Your task to perform on an android device: Go to display settings Image 0: 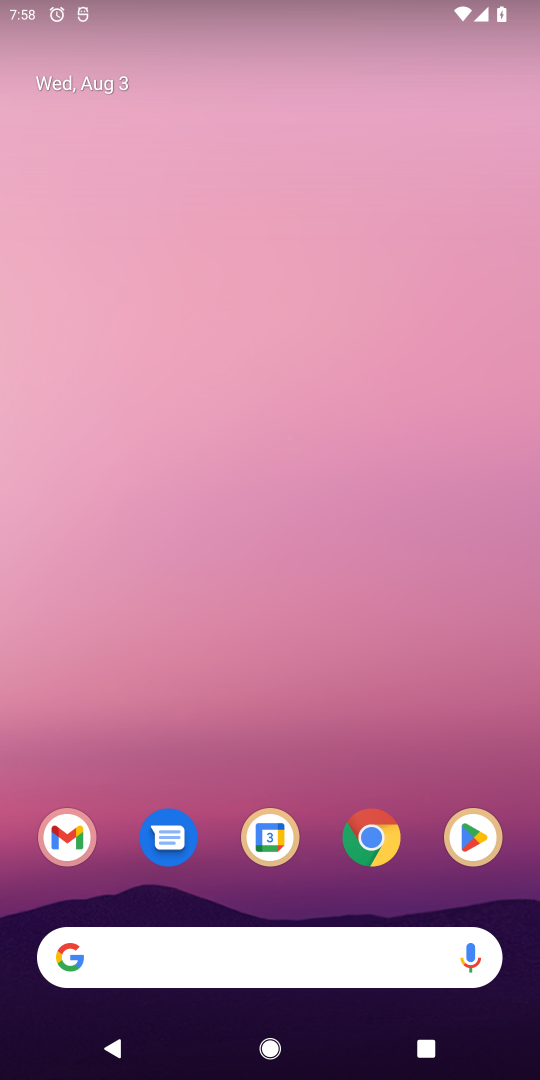
Step 0: press home button
Your task to perform on an android device: Go to display settings Image 1: 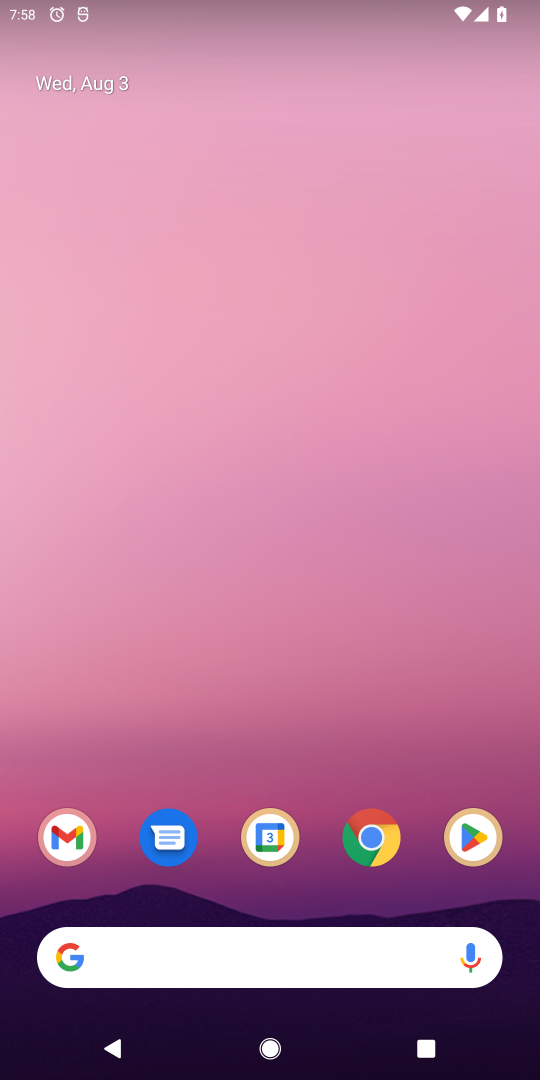
Step 1: drag from (252, 914) to (446, 225)
Your task to perform on an android device: Go to display settings Image 2: 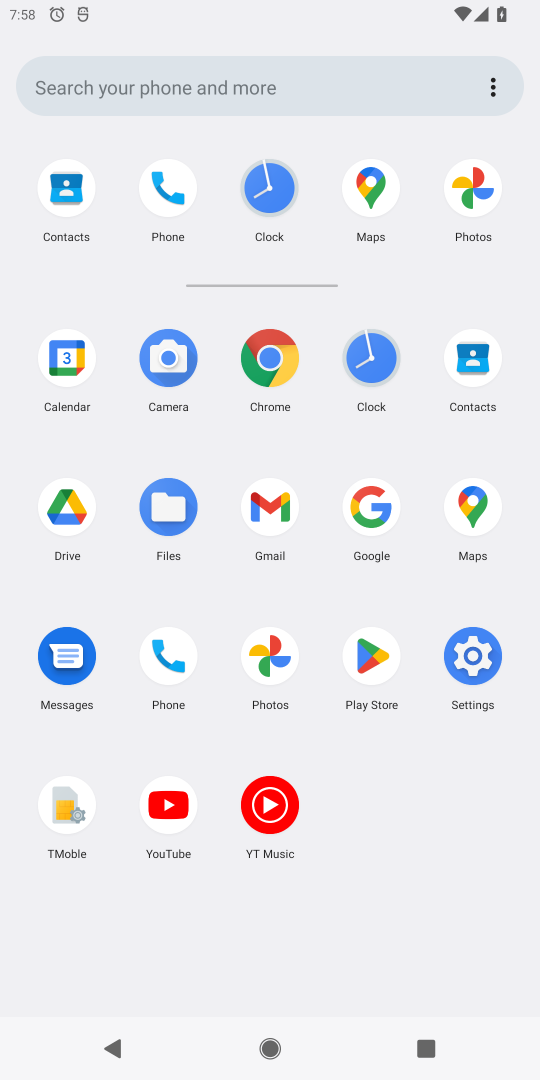
Step 2: click (467, 651)
Your task to perform on an android device: Go to display settings Image 3: 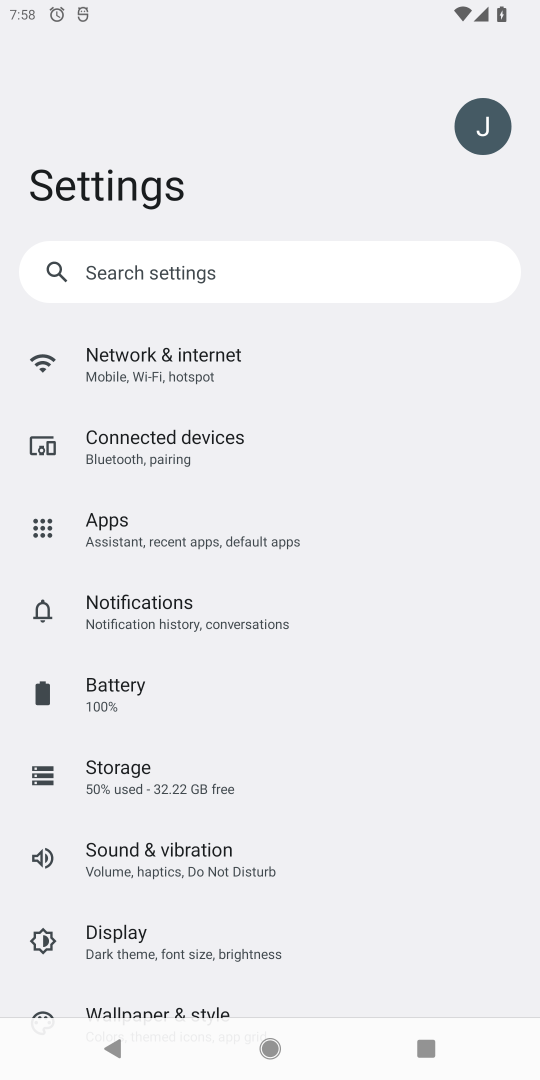
Step 3: click (120, 945)
Your task to perform on an android device: Go to display settings Image 4: 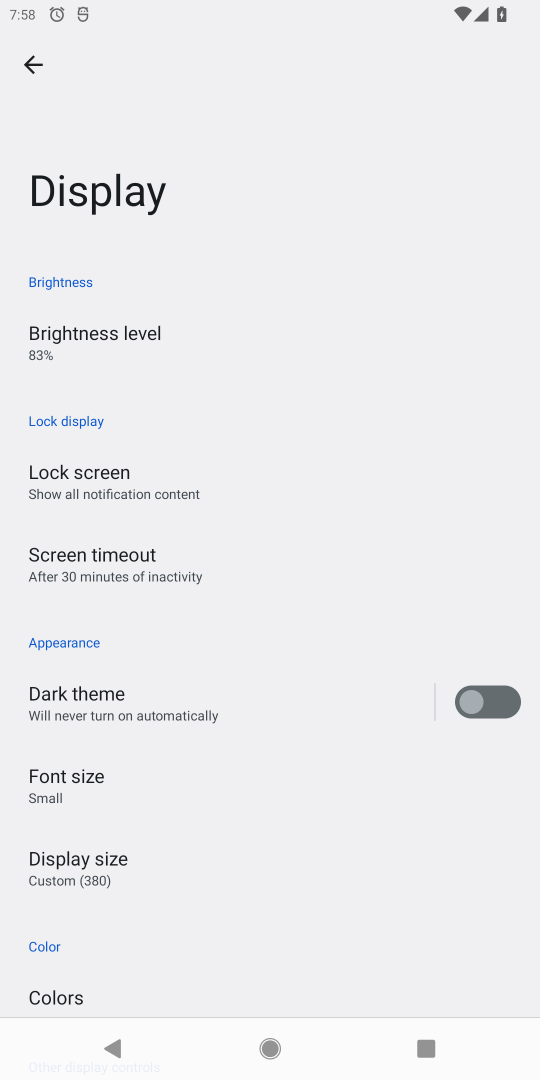
Step 4: task complete